Your task to perform on an android device: Open eBay Image 0: 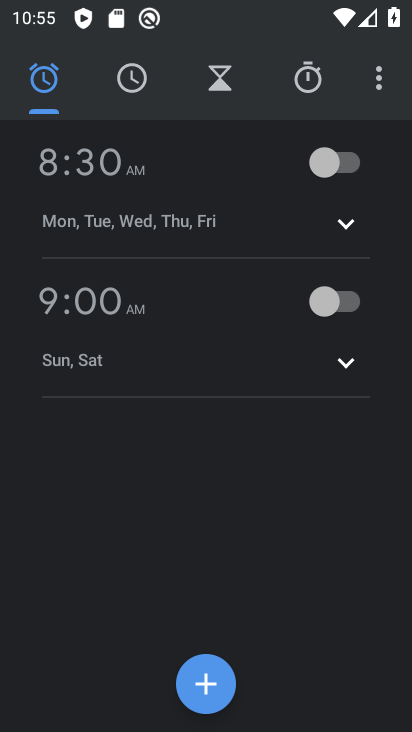
Step 0: press home button
Your task to perform on an android device: Open eBay Image 1: 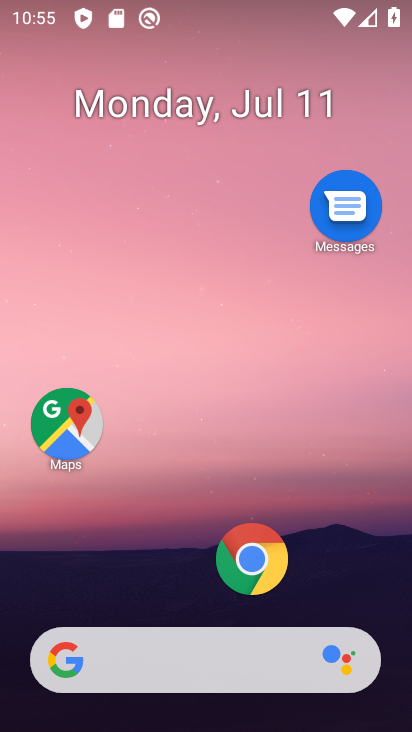
Step 1: drag from (366, 588) to (381, 132)
Your task to perform on an android device: Open eBay Image 2: 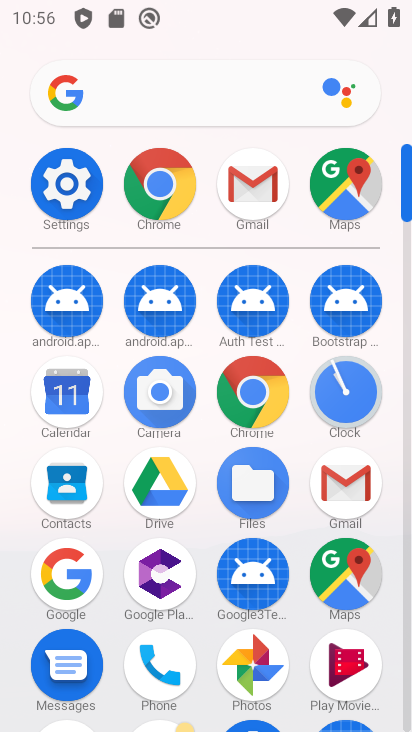
Step 2: click (259, 388)
Your task to perform on an android device: Open eBay Image 3: 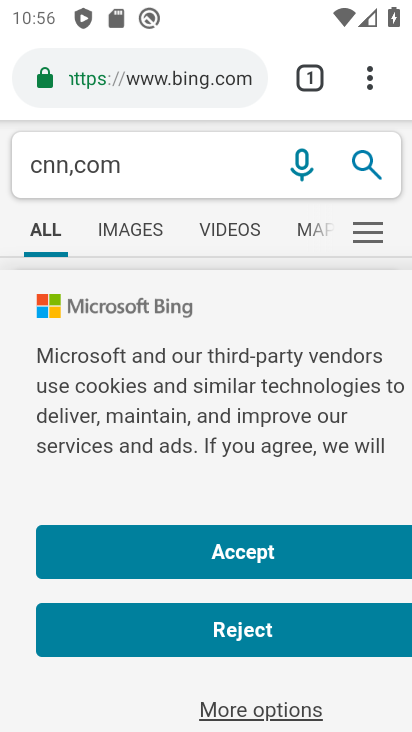
Step 3: click (195, 72)
Your task to perform on an android device: Open eBay Image 4: 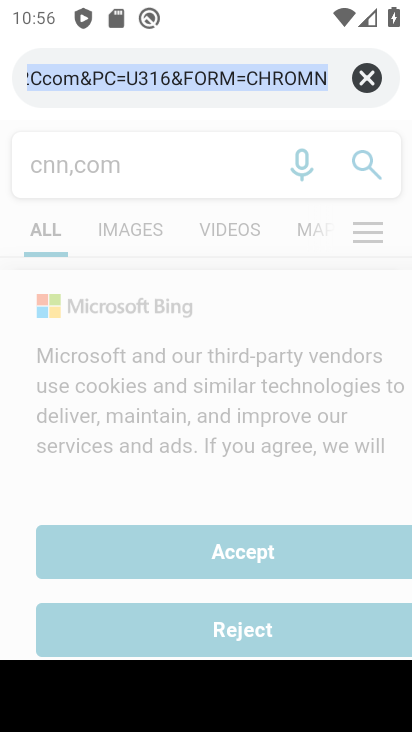
Step 4: type "ebay"
Your task to perform on an android device: Open eBay Image 5: 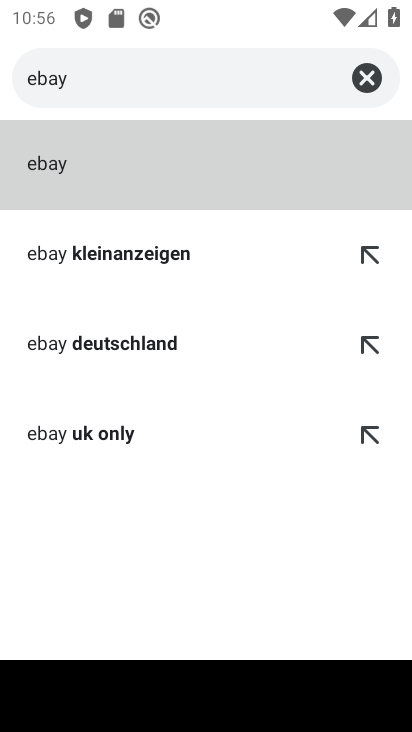
Step 5: click (314, 186)
Your task to perform on an android device: Open eBay Image 6: 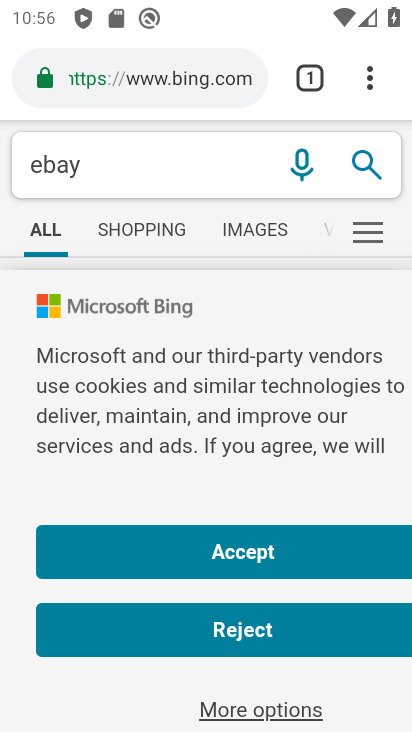
Step 6: task complete